Your task to perform on an android device: Open Chrome and go to the settings page Image 0: 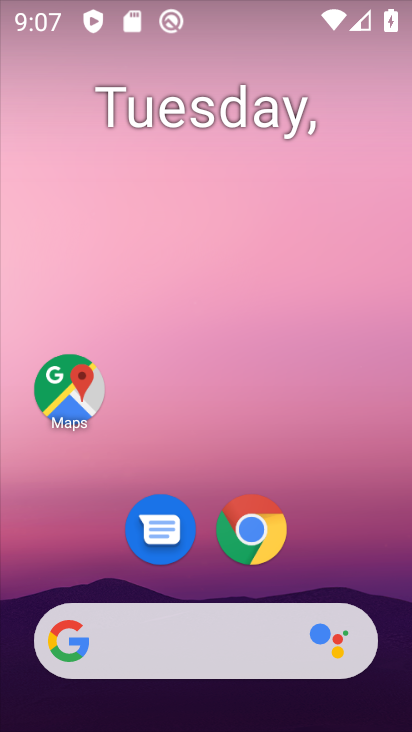
Step 0: drag from (199, 592) to (241, 26)
Your task to perform on an android device: Open Chrome and go to the settings page Image 1: 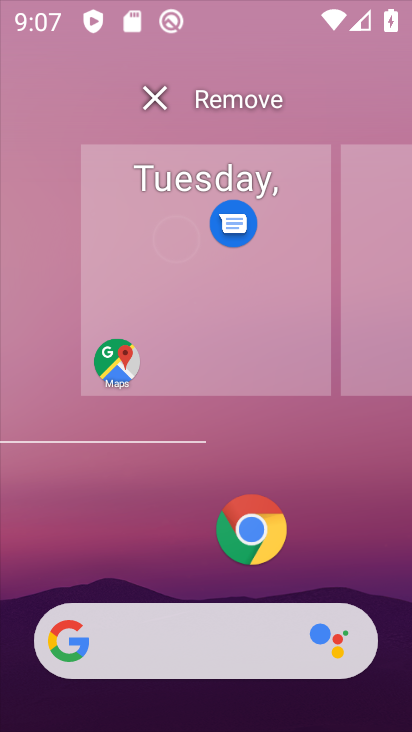
Step 1: drag from (185, 576) to (207, 2)
Your task to perform on an android device: Open Chrome and go to the settings page Image 2: 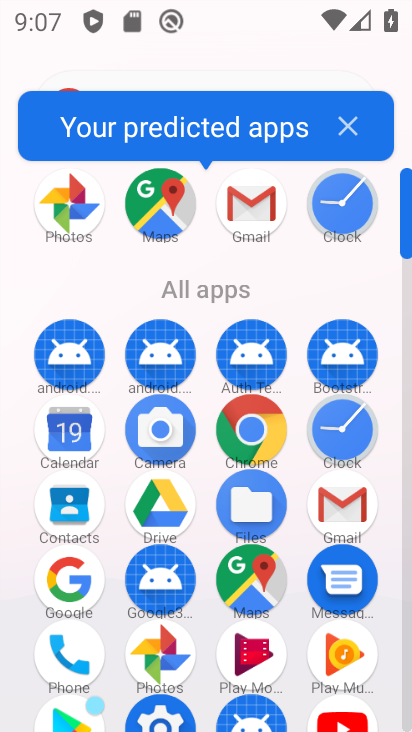
Step 2: click (270, 447)
Your task to perform on an android device: Open Chrome and go to the settings page Image 3: 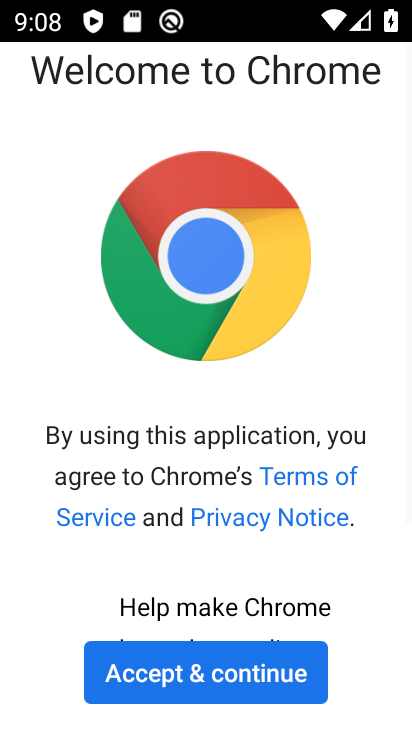
Step 3: click (218, 681)
Your task to perform on an android device: Open Chrome and go to the settings page Image 4: 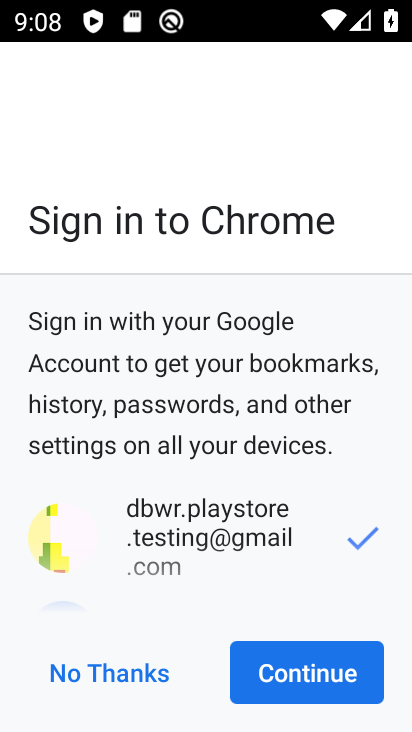
Step 4: click (266, 670)
Your task to perform on an android device: Open Chrome and go to the settings page Image 5: 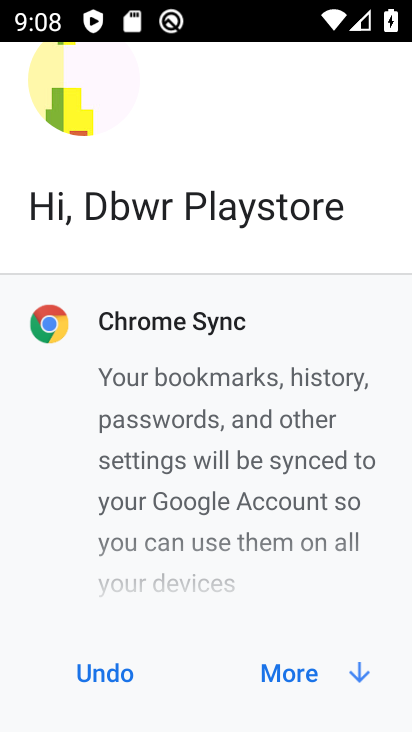
Step 5: click (264, 667)
Your task to perform on an android device: Open Chrome and go to the settings page Image 6: 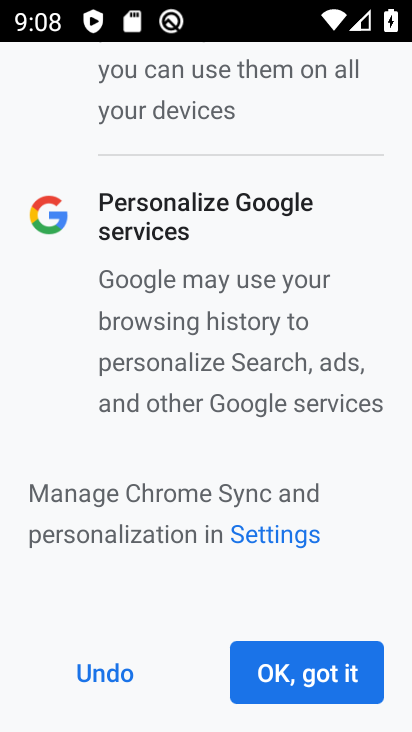
Step 6: click (276, 675)
Your task to perform on an android device: Open Chrome and go to the settings page Image 7: 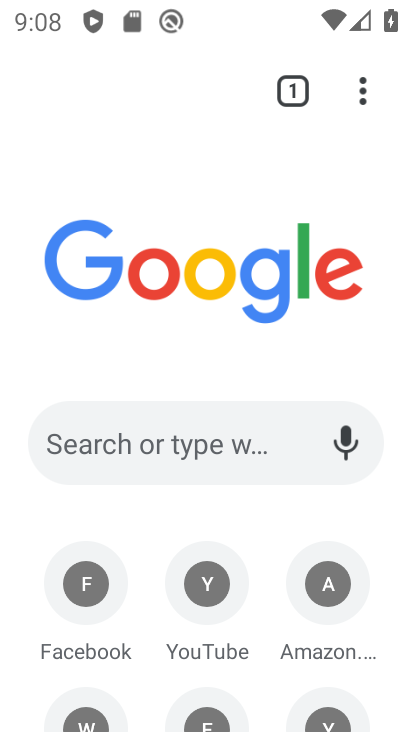
Step 7: click (358, 107)
Your task to perform on an android device: Open Chrome and go to the settings page Image 8: 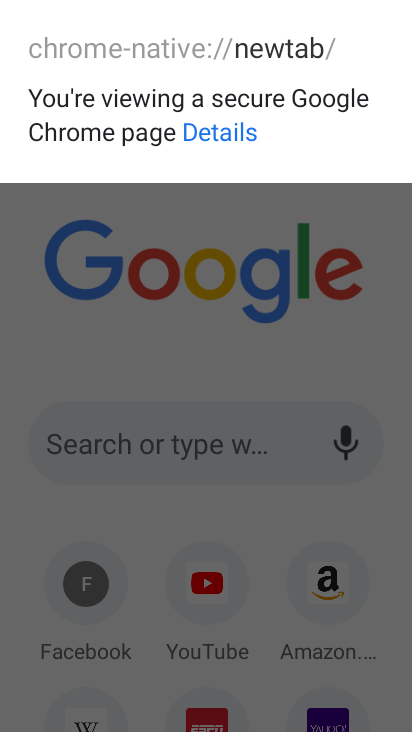
Step 8: click (260, 240)
Your task to perform on an android device: Open Chrome and go to the settings page Image 9: 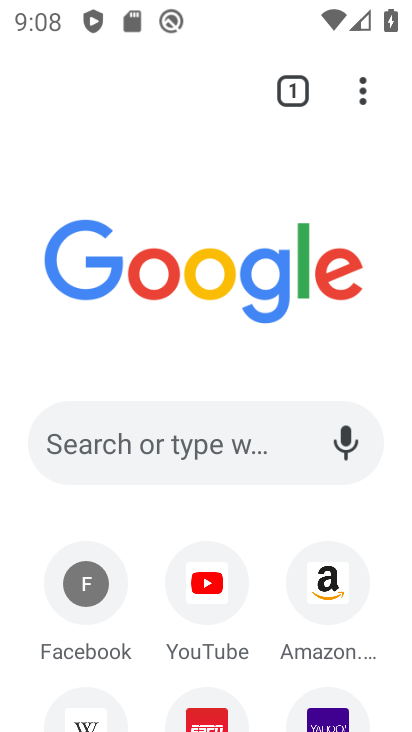
Step 9: click (354, 98)
Your task to perform on an android device: Open Chrome and go to the settings page Image 10: 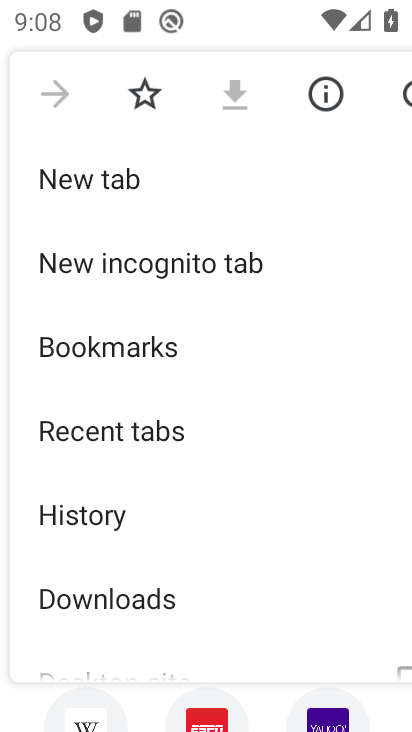
Step 10: drag from (223, 603) to (184, 193)
Your task to perform on an android device: Open Chrome and go to the settings page Image 11: 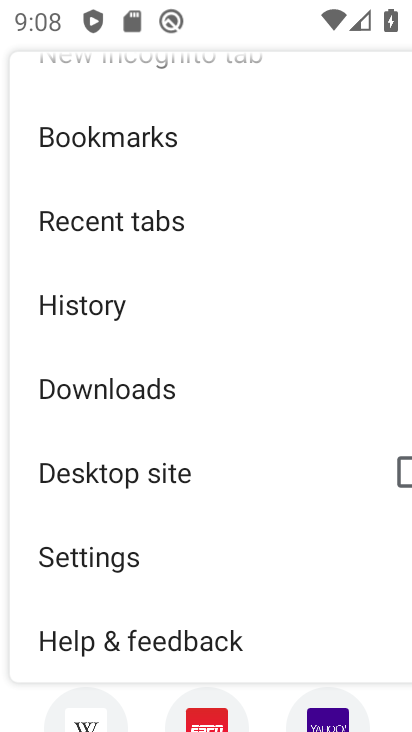
Step 11: click (99, 546)
Your task to perform on an android device: Open Chrome and go to the settings page Image 12: 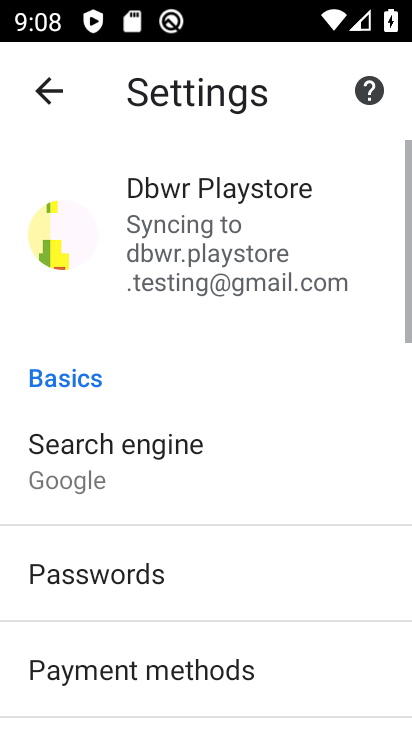
Step 12: task complete